Your task to perform on an android device: turn off javascript in the chrome app Image 0: 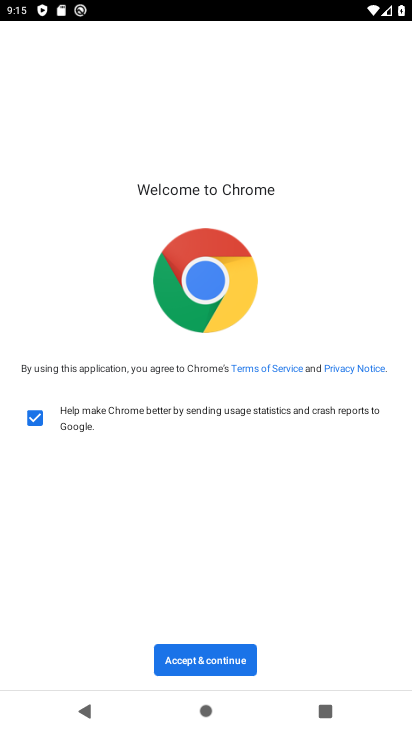
Step 0: click (179, 662)
Your task to perform on an android device: turn off javascript in the chrome app Image 1: 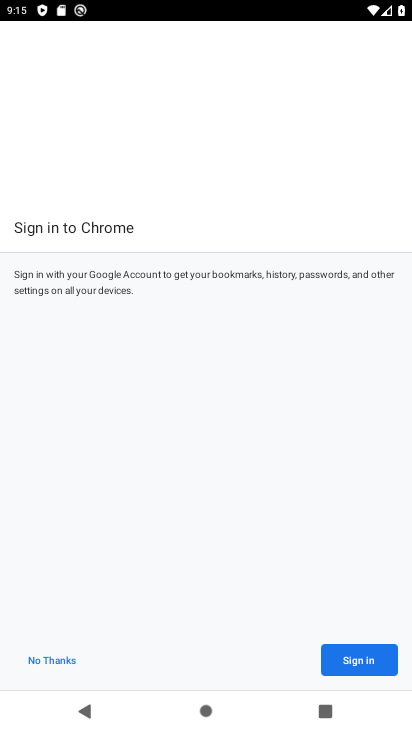
Step 1: click (49, 659)
Your task to perform on an android device: turn off javascript in the chrome app Image 2: 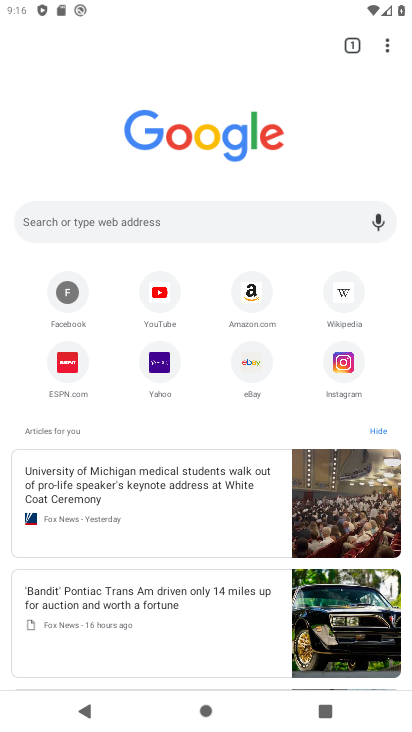
Step 2: click (382, 44)
Your task to perform on an android device: turn off javascript in the chrome app Image 3: 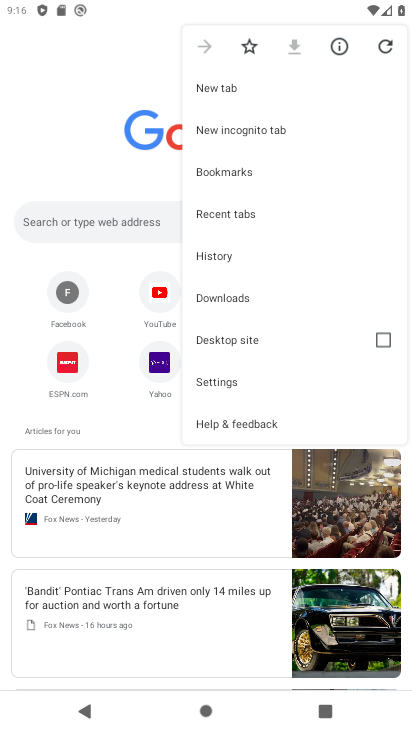
Step 3: click (216, 376)
Your task to perform on an android device: turn off javascript in the chrome app Image 4: 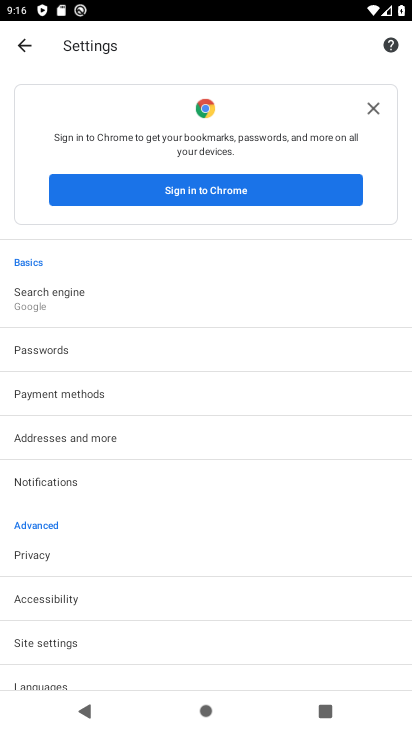
Step 4: click (58, 640)
Your task to perform on an android device: turn off javascript in the chrome app Image 5: 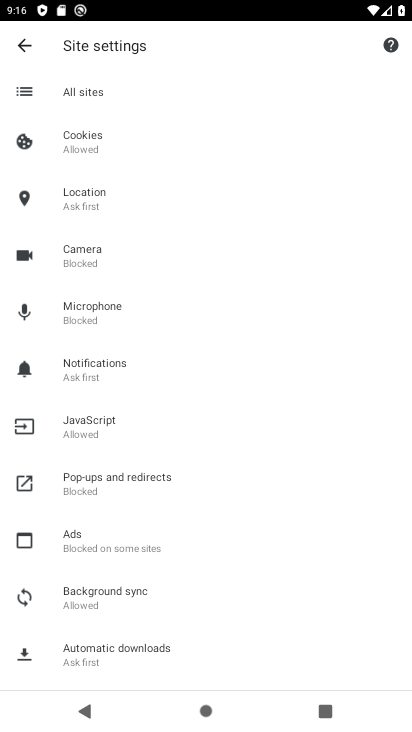
Step 5: click (95, 427)
Your task to perform on an android device: turn off javascript in the chrome app Image 6: 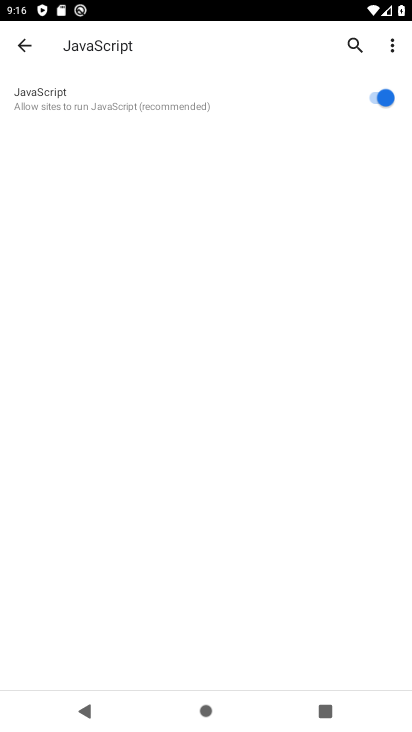
Step 6: click (388, 91)
Your task to perform on an android device: turn off javascript in the chrome app Image 7: 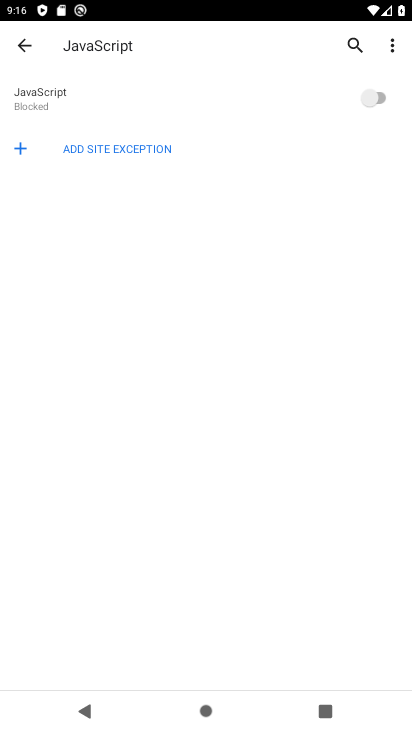
Step 7: task complete